Your task to perform on an android device: Open Android settings Image 0: 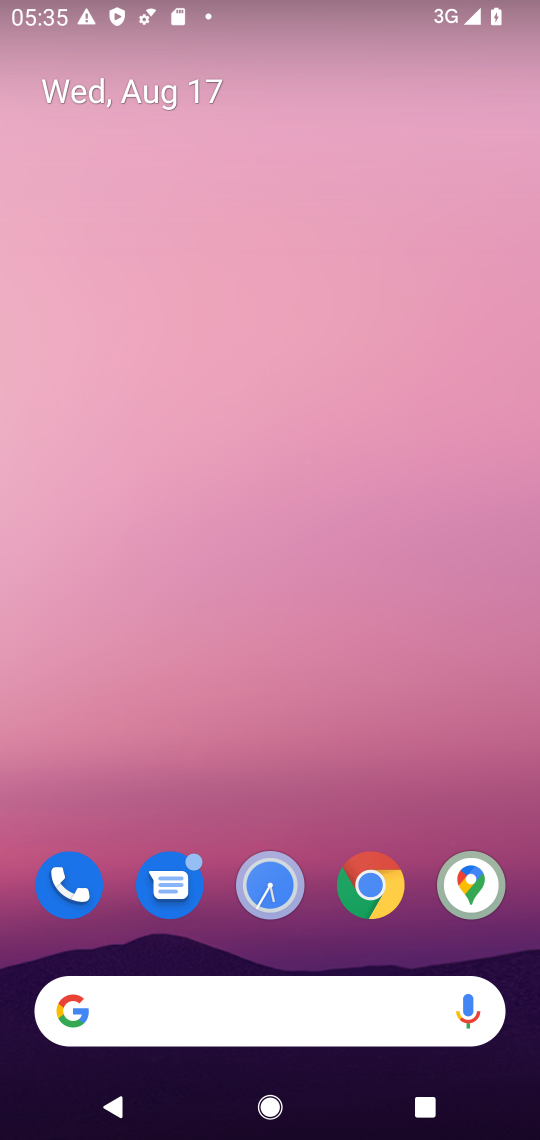
Step 0: drag from (245, 804) to (496, 69)
Your task to perform on an android device: Open Android settings Image 1: 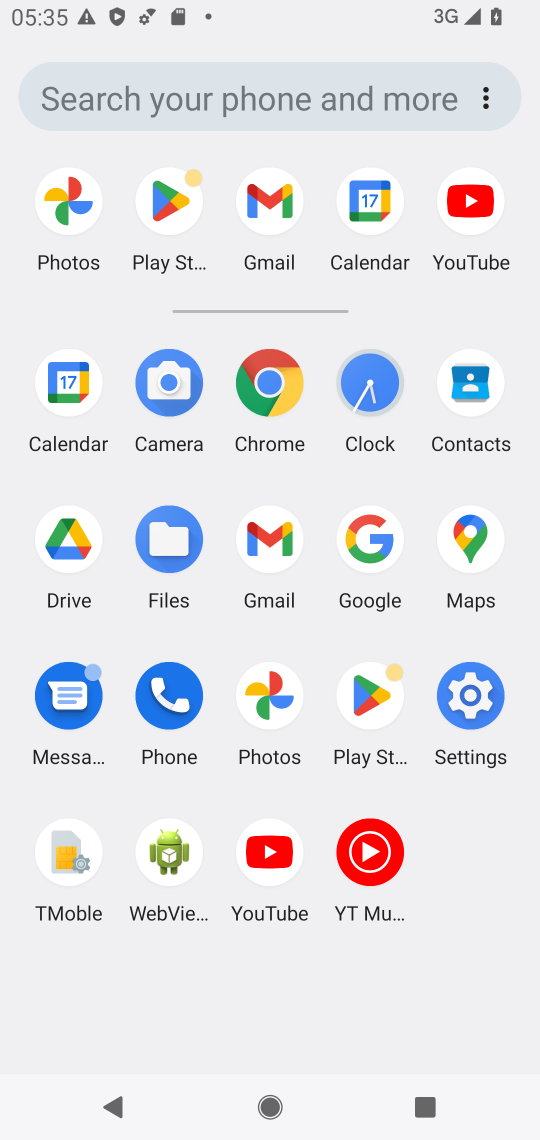
Step 1: click (488, 709)
Your task to perform on an android device: Open Android settings Image 2: 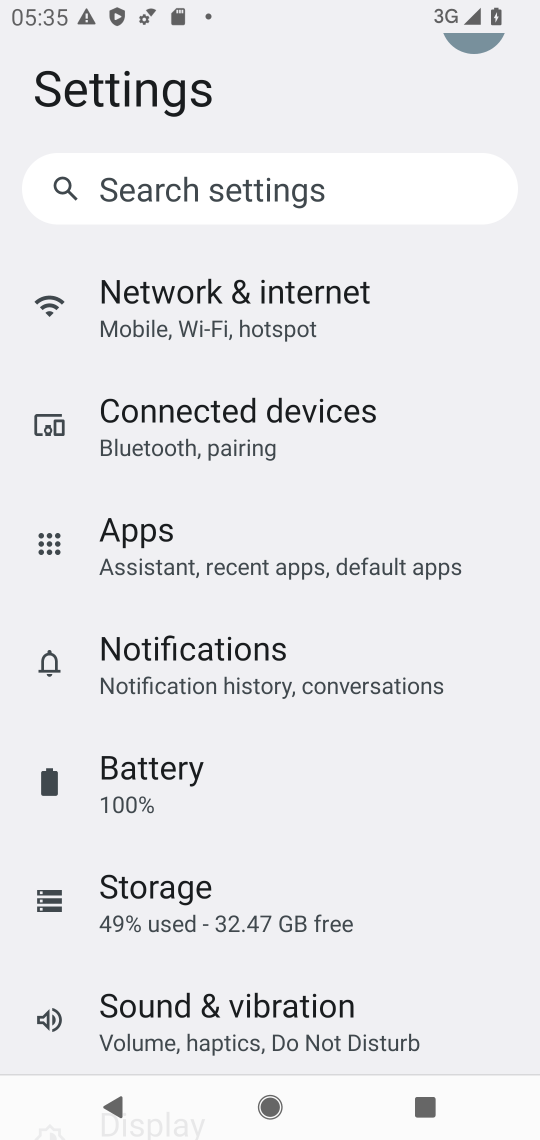
Step 2: task complete